Your task to perform on an android device: Open Google Maps Image 0: 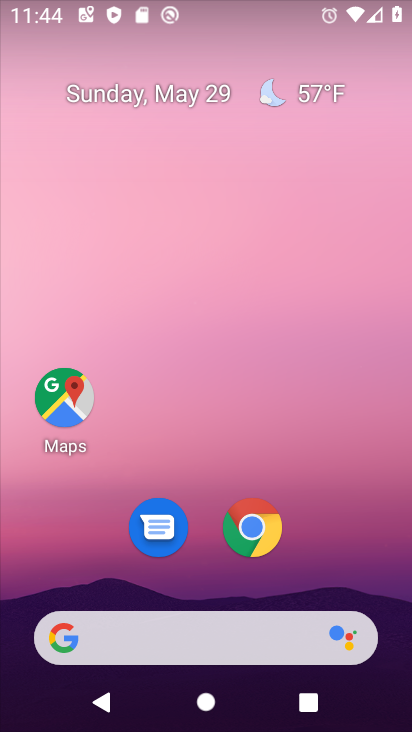
Step 0: click (61, 389)
Your task to perform on an android device: Open Google Maps Image 1: 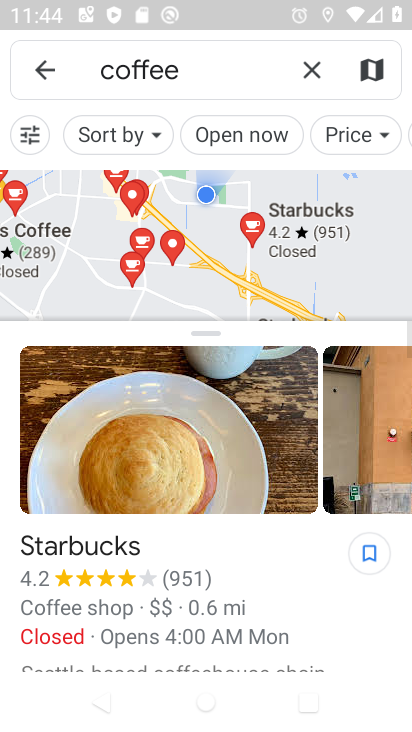
Step 1: click (52, 74)
Your task to perform on an android device: Open Google Maps Image 2: 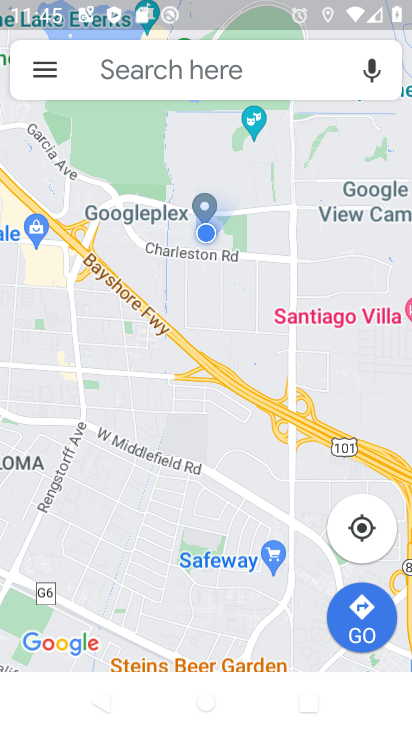
Step 2: task complete